Your task to perform on an android device: Toggle the flashlight Image 0: 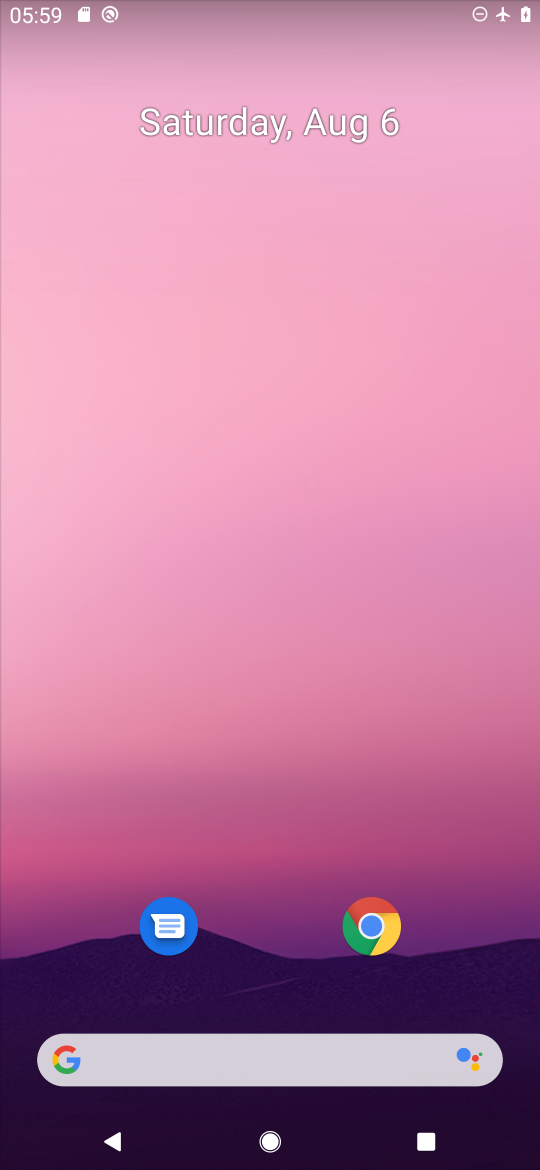
Step 0: drag from (249, 914) to (249, 277)
Your task to perform on an android device: Toggle the flashlight Image 1: 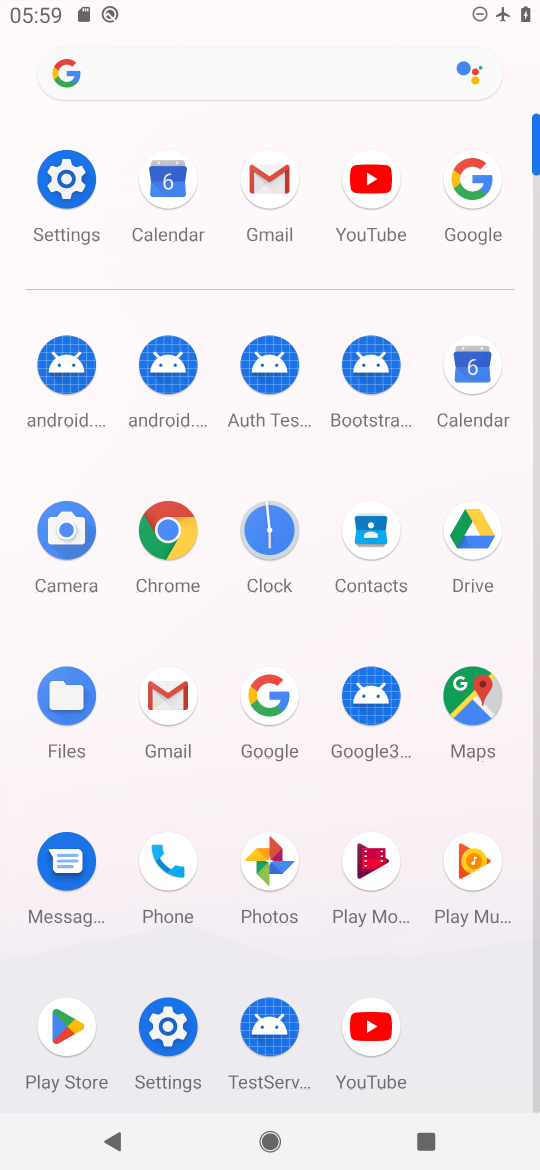
Step 1: click (21, 210)
Your task to perform on an android device: Toggle the flashlight Image 2: 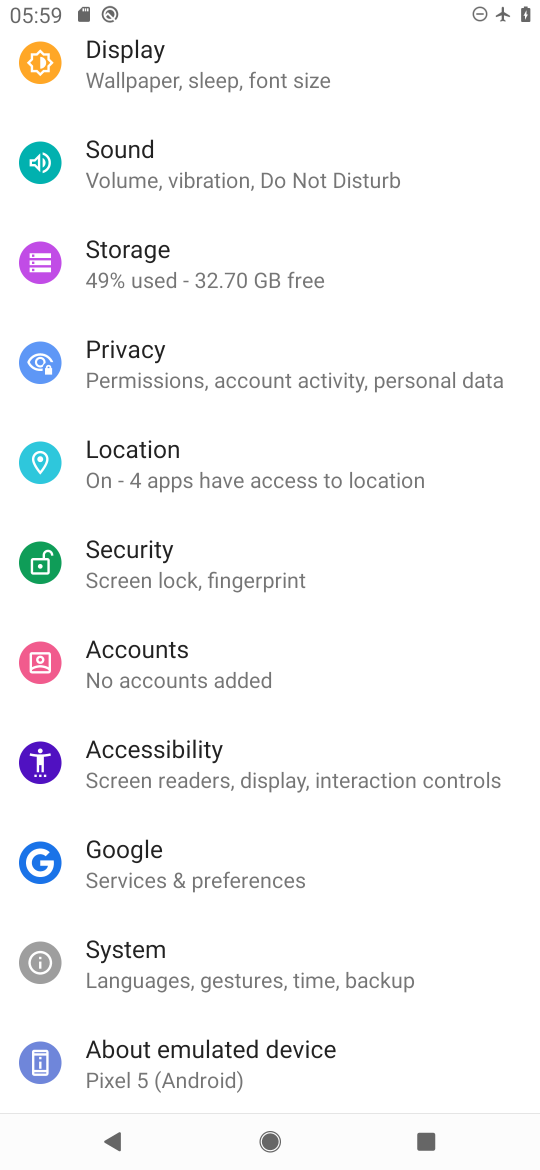
Step 2: task complete